Your task to perform on an android device: Open accessibility settings Image 0: 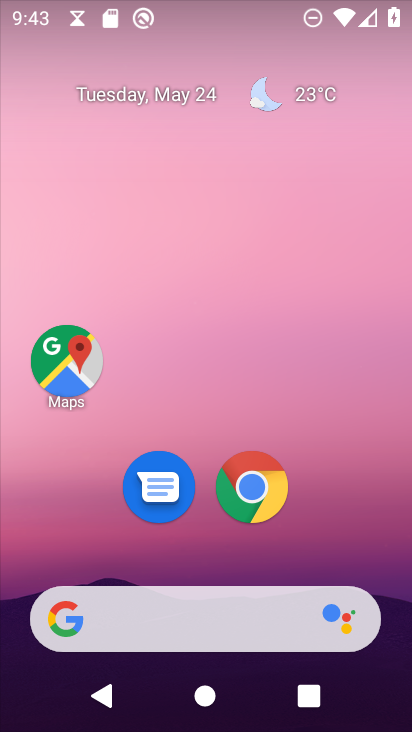
Step 0: drag from (13, 599) to (213, 149)
Your task to perform on an android device: Open accessibility settings Image 1: 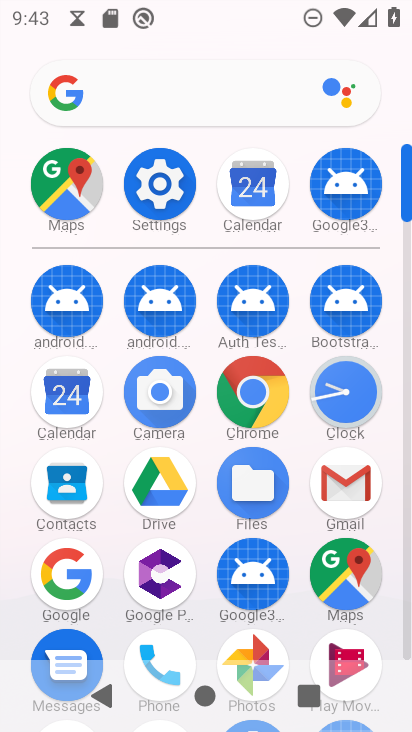
Step 1: click (152, 180)
Your task to perform on an android device: Open accessibility settings Image 2: 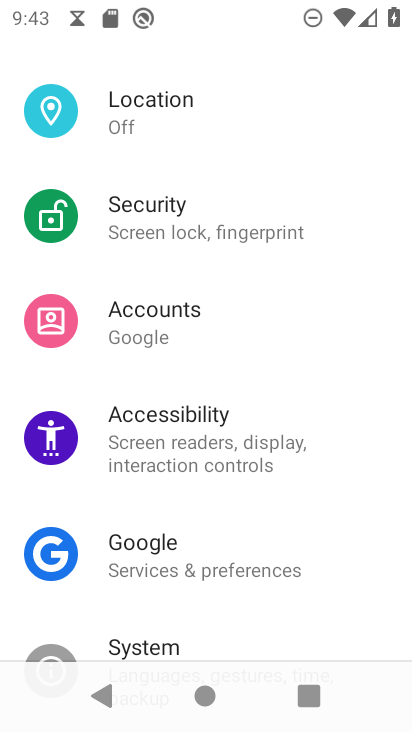
Step 2: click (197, 435)
Your task to perform on an android device: Open accessibility settings Image 3: 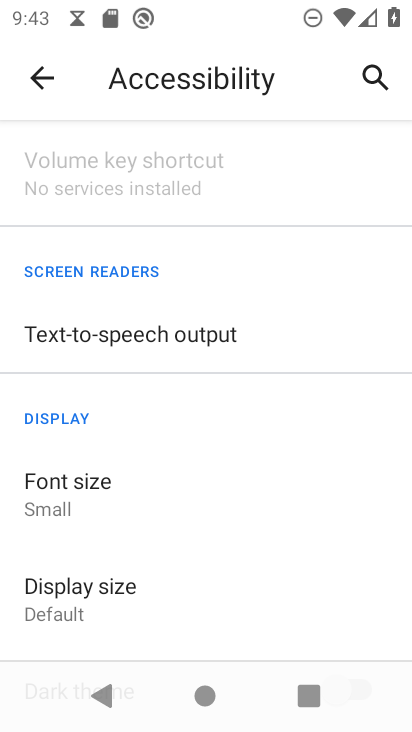
Step 3: task complete